Your task to perform on an android device: Search for flights from London to Paris Image 0: 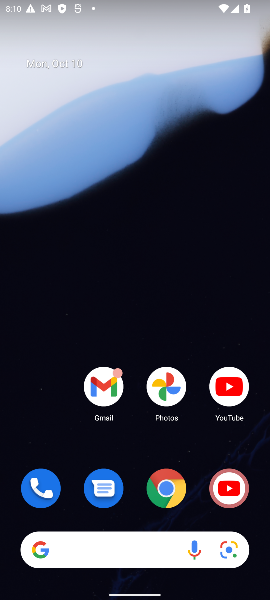
Step 0: drag from (129, 513) to (73, 126)
Your task to perform on an android device: Search for flights from London to Paris Image 1: 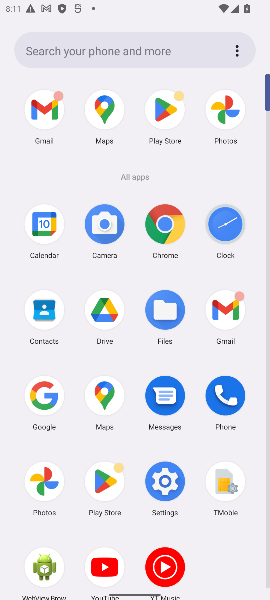
Step 1: click (161, 232)
Your task to perform on an android device: Search for flights from London to Paris Image 2: 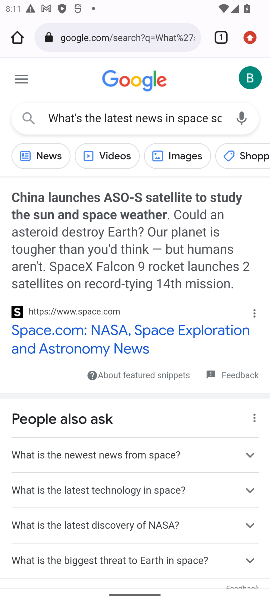
Step 2: click (178, 112)
Your task to perform on an android device: Search for flights from London to Paris Image 3: 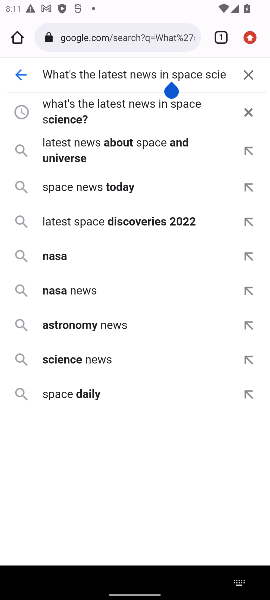
Step 3: click (178, 112)
Your task to perform on an android device: Search for flights from London to Paris Image 4: 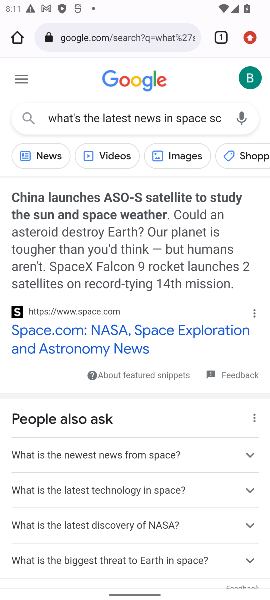
Step 4: click (132, 45)
Your task to perform on an android device: Search for flights from London to Paris Image 5: 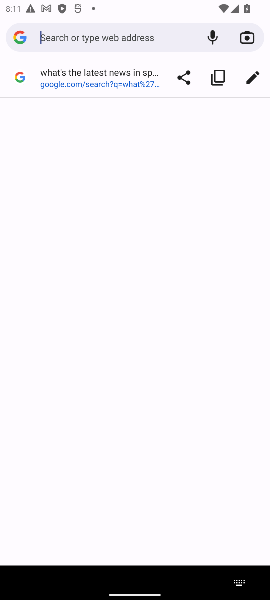
Step 5: type "flights from London to Paris"
Your task to perform on an android device: Search for flights from London to Paris Image 6: 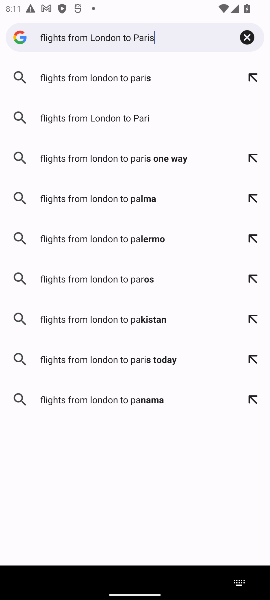
Step 6: press enter
Your task to perform on an android device: Search for flights from London to Paris Image 7: 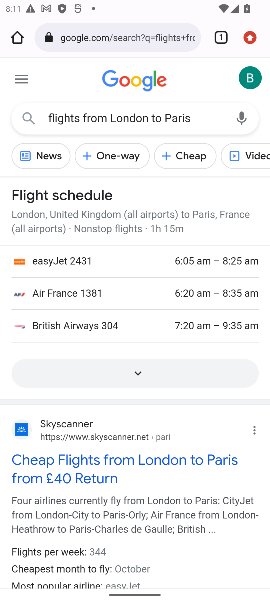
Step 7: task complete